Your task to perform on an android device: check storage Image 0: 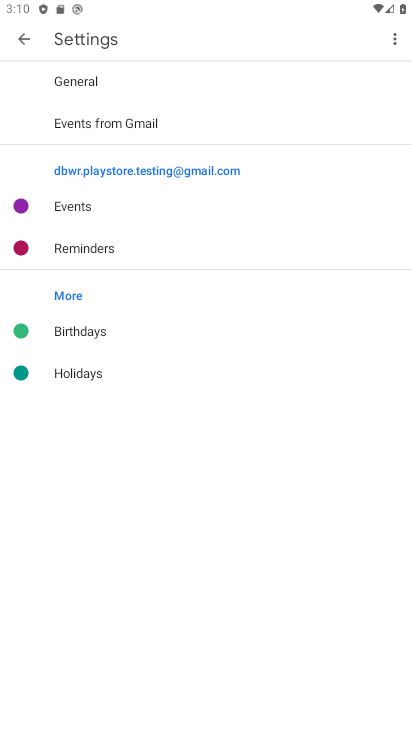
Step 0: press home button
Your task to perform on an android device: check storage Image 1: 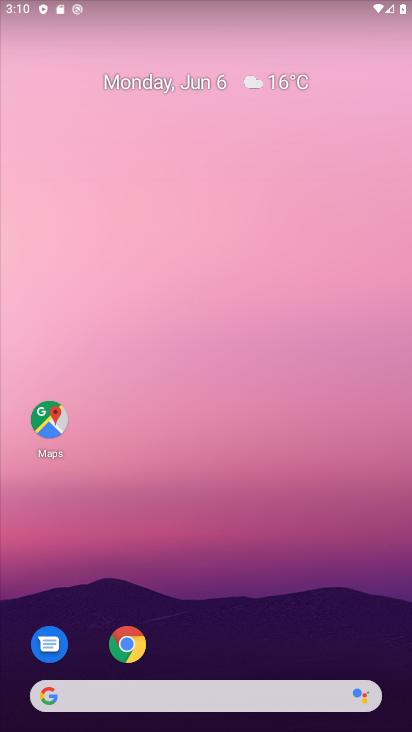
Step 1: drag from (231, 628) to (257, 283)
Your task to perform on an android device: check storage Image 2: 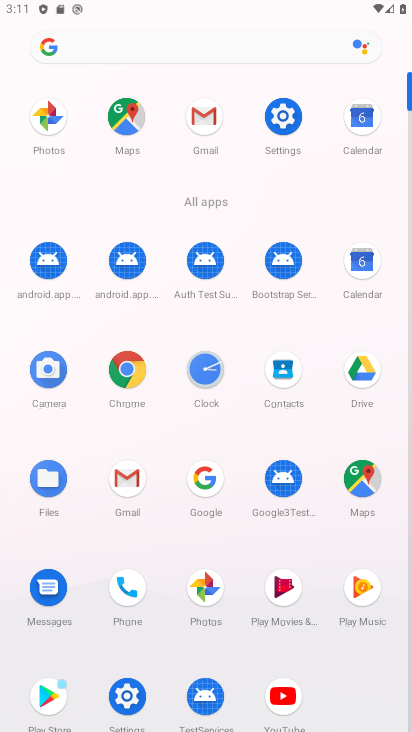
Step 2: click (286, 139)
Your task to perform on an android device: check storage Image 3: 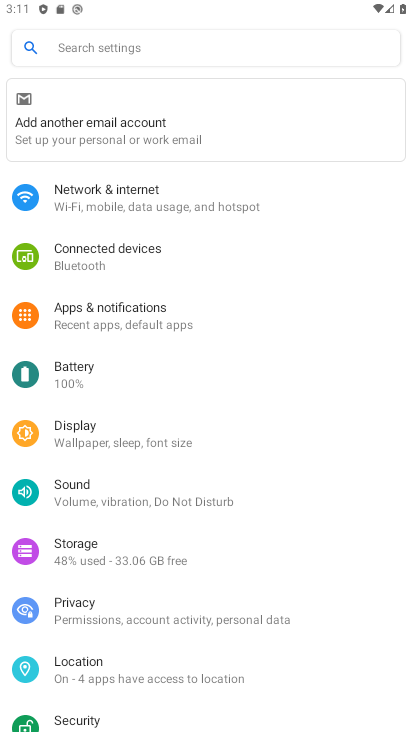
Step 3: click (116, 549)
Your task to perform on an android device: check storage Image 4: 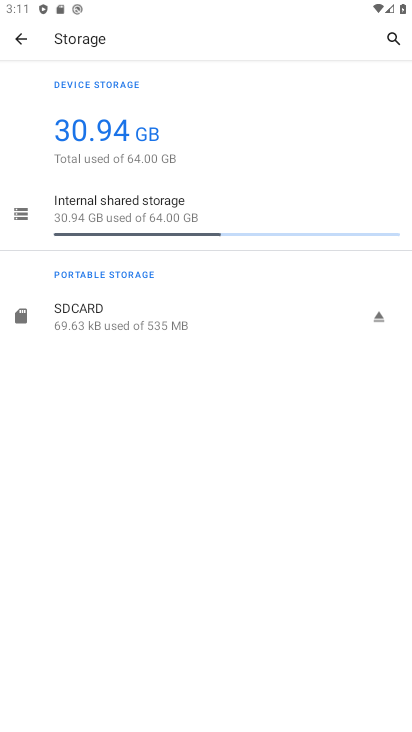
Step 4: click (152, 210)
Your task to perform on an android device: check storage Image 5: 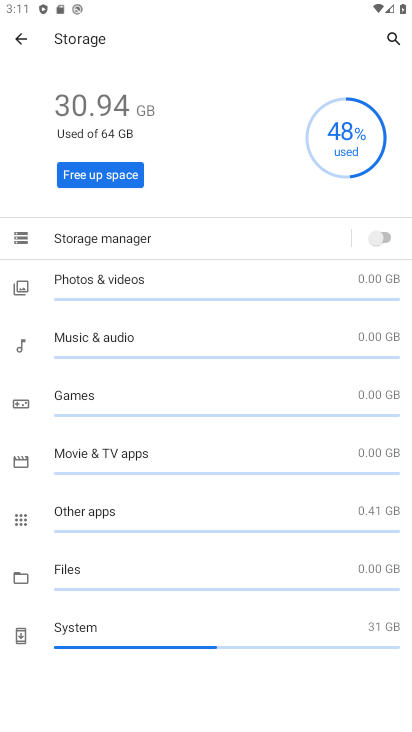
Step 5: task complete